Your task to perform on an android device: Do I have any events today? Image 0: 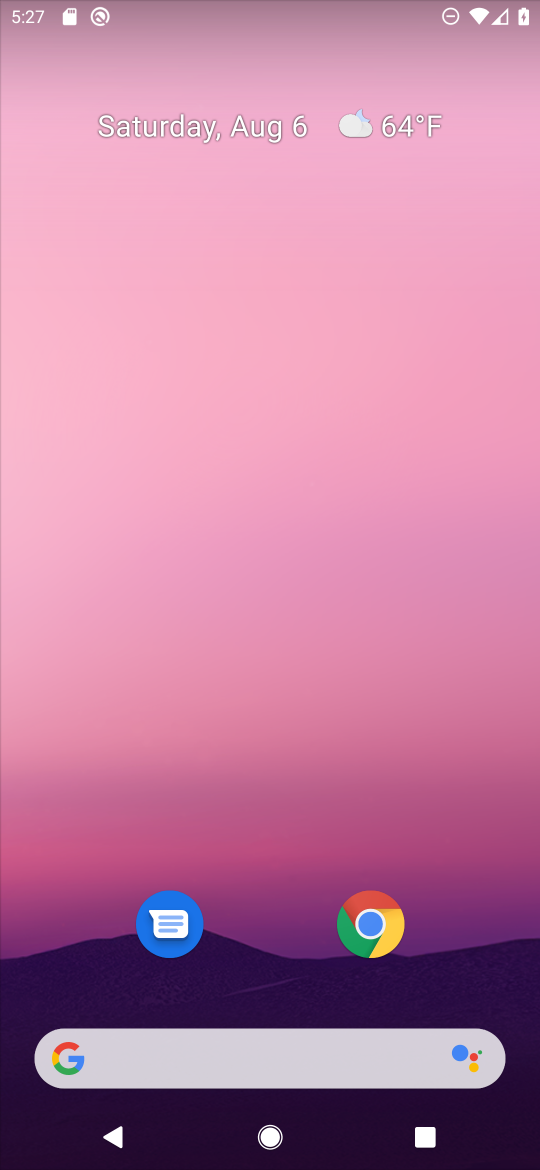
Step 0: drag from (243, 968) to (220, 186)
Your task to perform on an android device: Do I have any events today? Image 1: 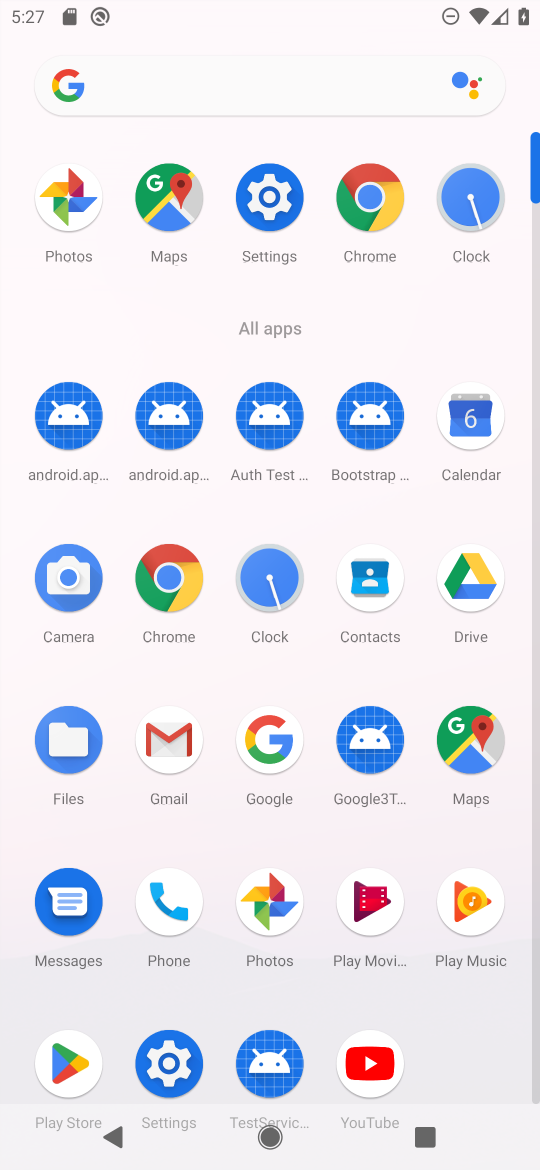
Step 1: click (475, 415)
Your task to perform on an android device: Do I have any events today? Image 2: 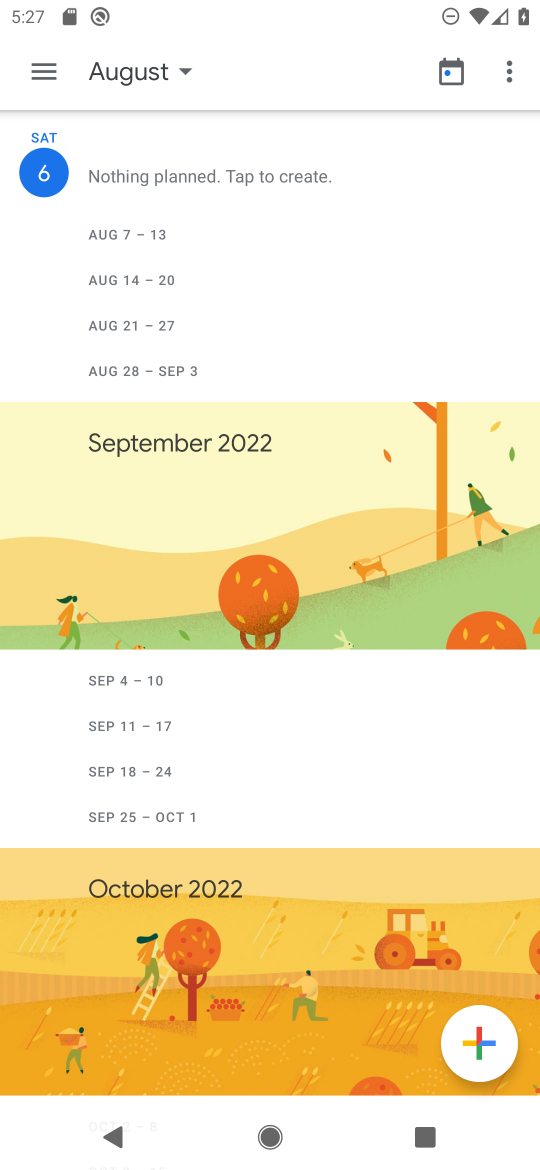
Step 2: click (32, 64)
Your task to perform on an android device: Do I have any events today? Image 3: 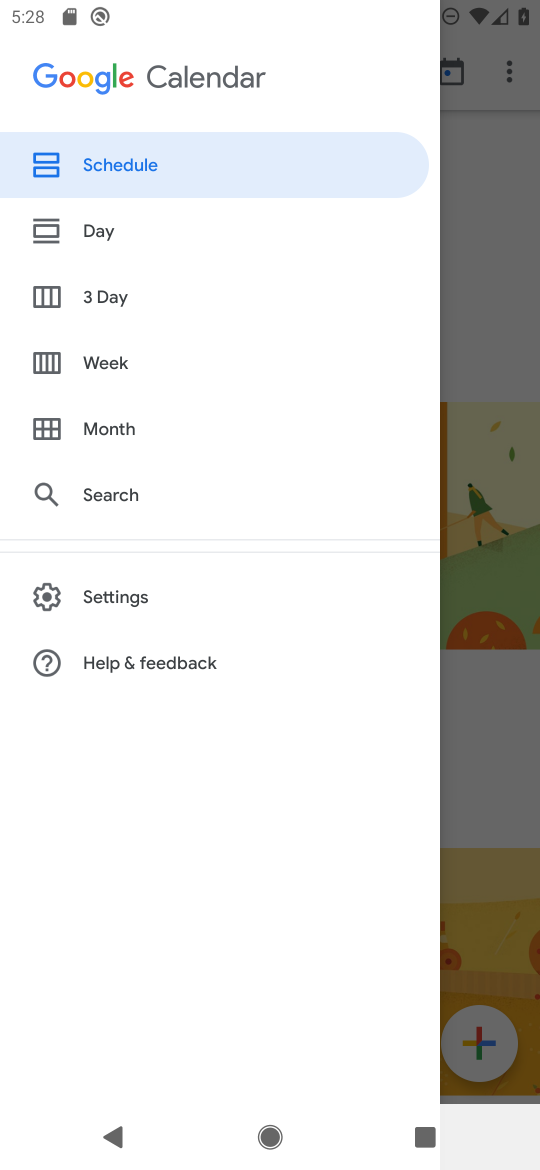
Step 3: click (102, 226)
Your task to perform on an android device: Do I have any events today? Image 4: 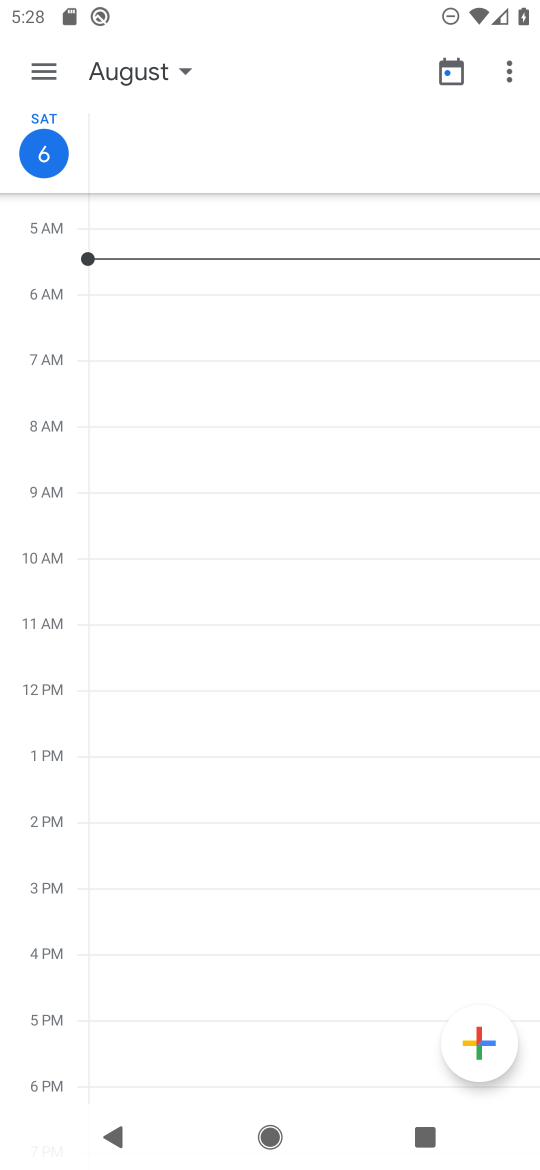
Step 4: task complete